Your task to perform on an android device: Open wifi settings Image 0: 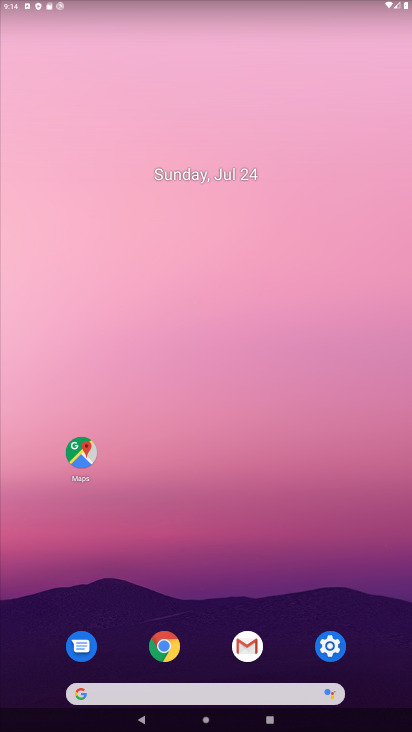
Step 0: click (341, 638)
Your task to perform on an android device: Open wifi settings Image 1: 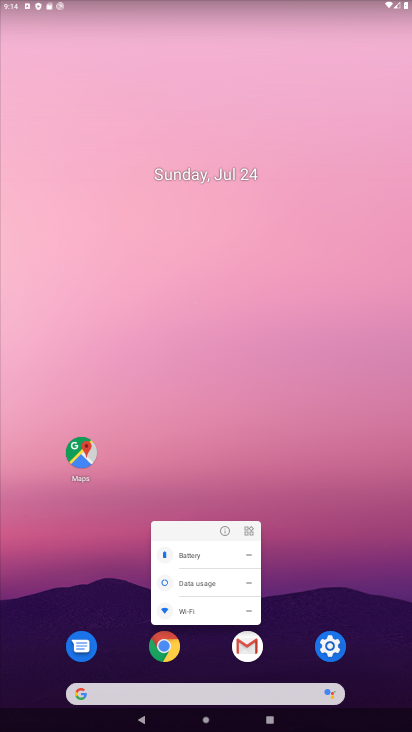
Step 1: click (325, 652)
Your task to perform on an android device: Open wifi settings Image 2: 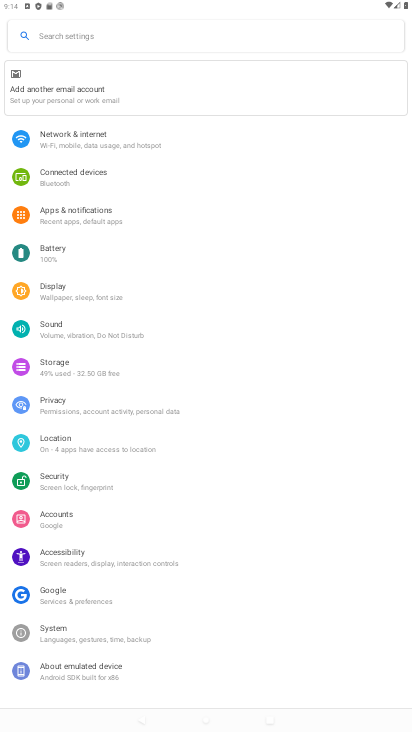
Step 2: click (82, 143)
Your task to perform on an android device: Open wifi settings Image 3: 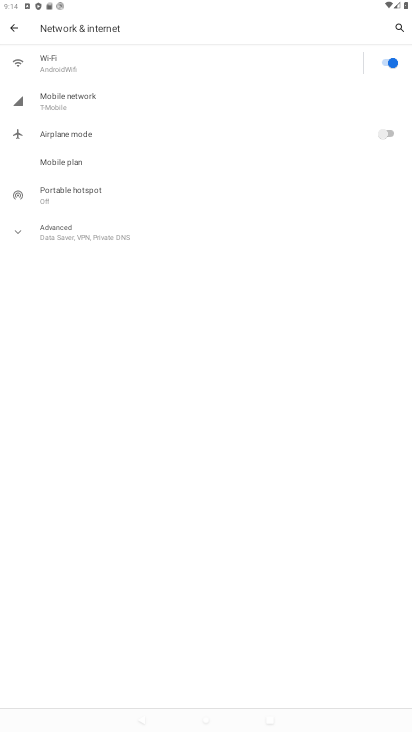
Step 3: click (84, 69)
Your task to perform on an android device: Open wifi settings Image 4: 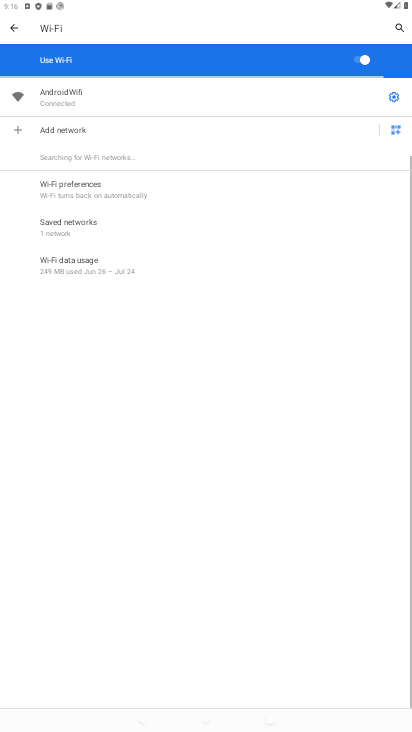
Step 4: task complete